Your task to perform on an android device: uninstall "Google Maps" Image 0: 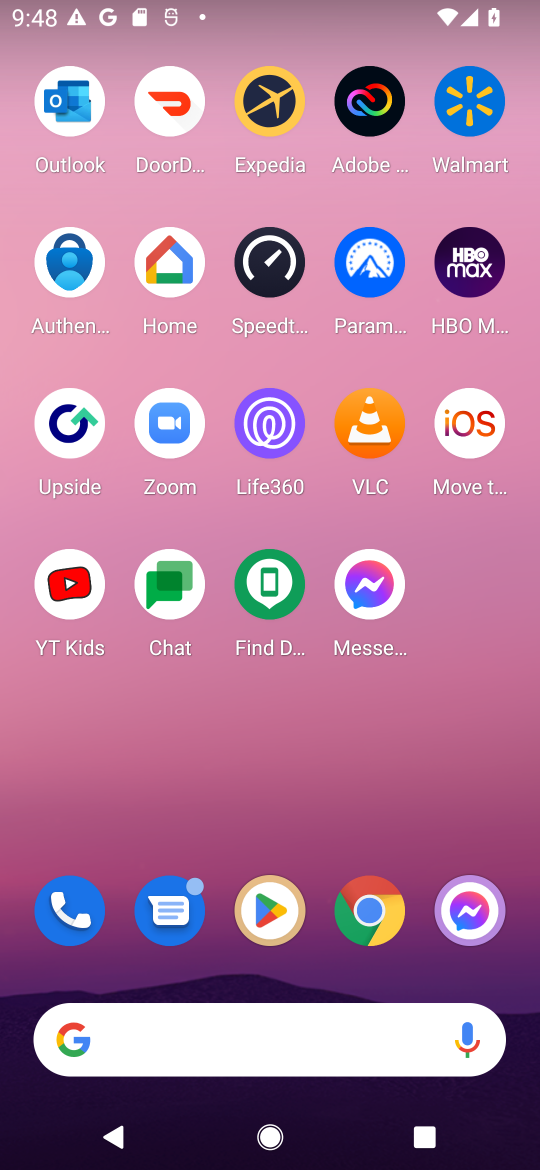
Step 0: click (272, 905)
Your task to perform on an android device: uninstall "Google Maps" Image 1: 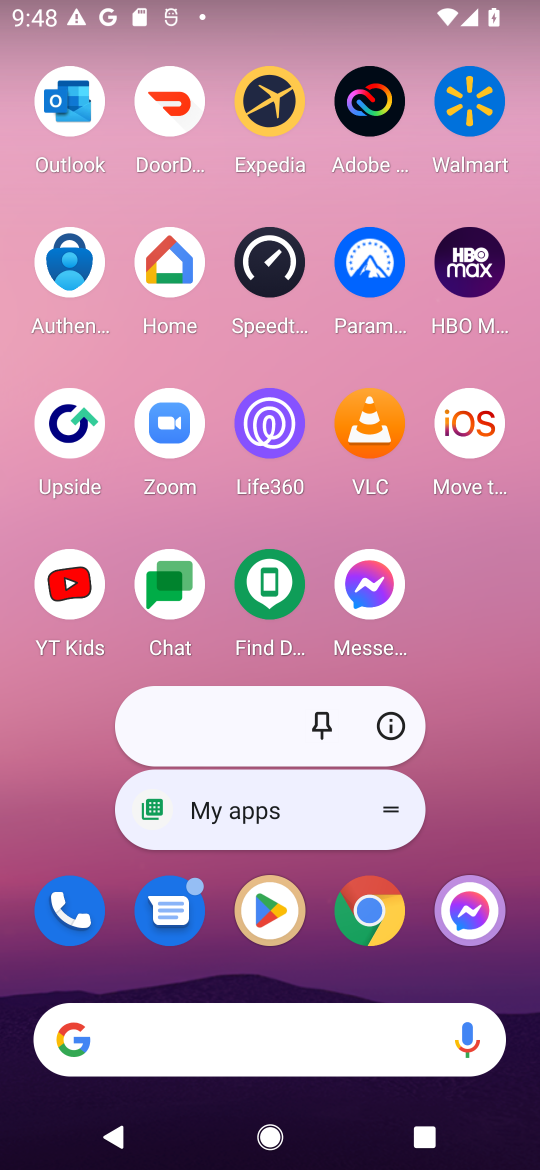
Step 1: click (273, 909)
Your task to perform on an android device: uninstall "Google Maps" Image 2: 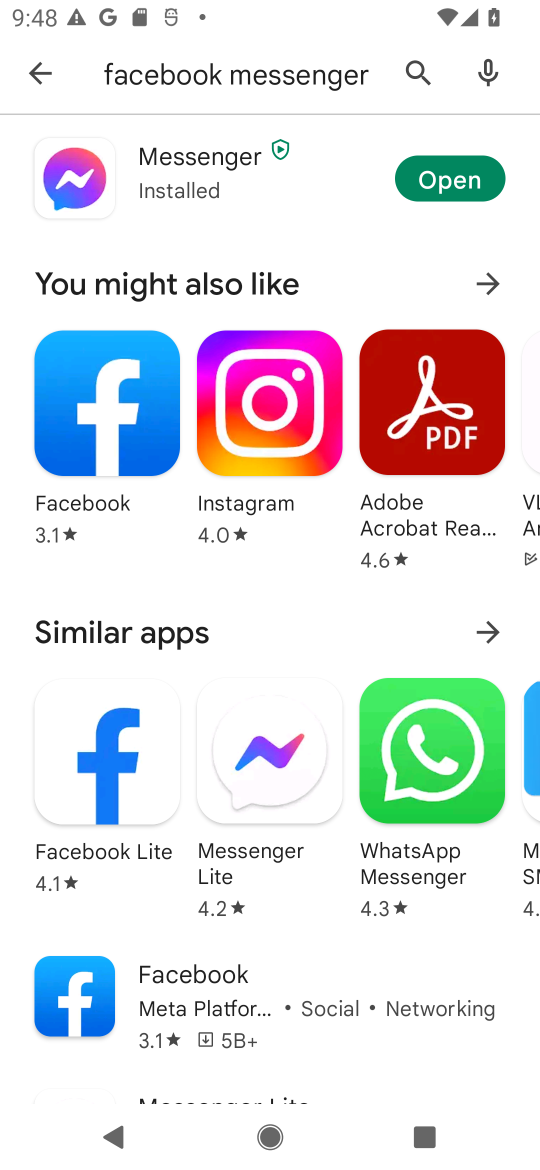
Step 2: click (409, 72)
Your task to perform on an android device: uninstall "Google Maps" Image 3: 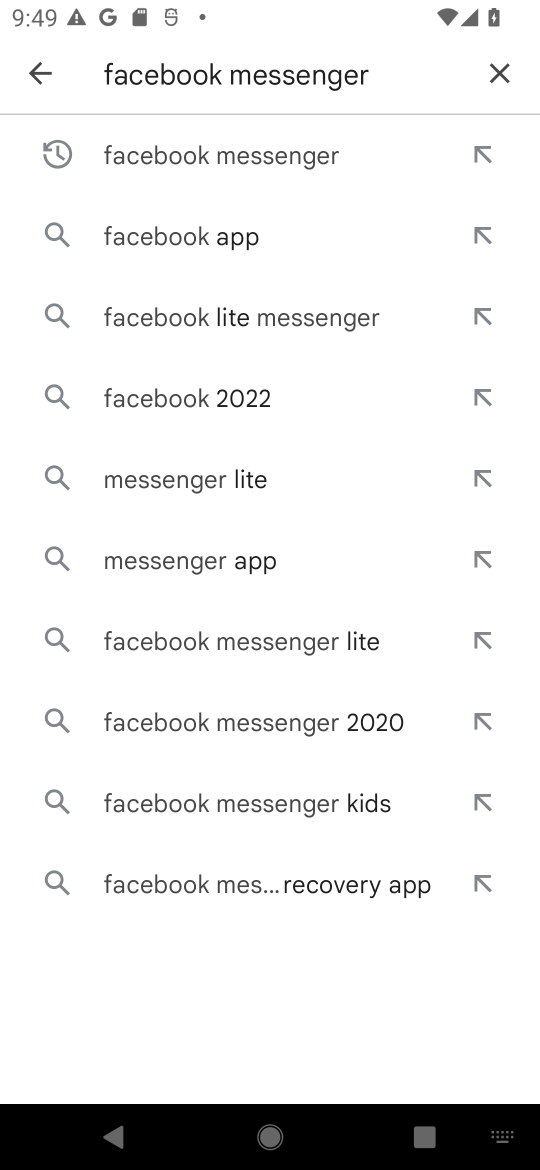
Step 3: click (506, 74)
Your task to perform on an android device: uninstall "Google Maps" Image 4: 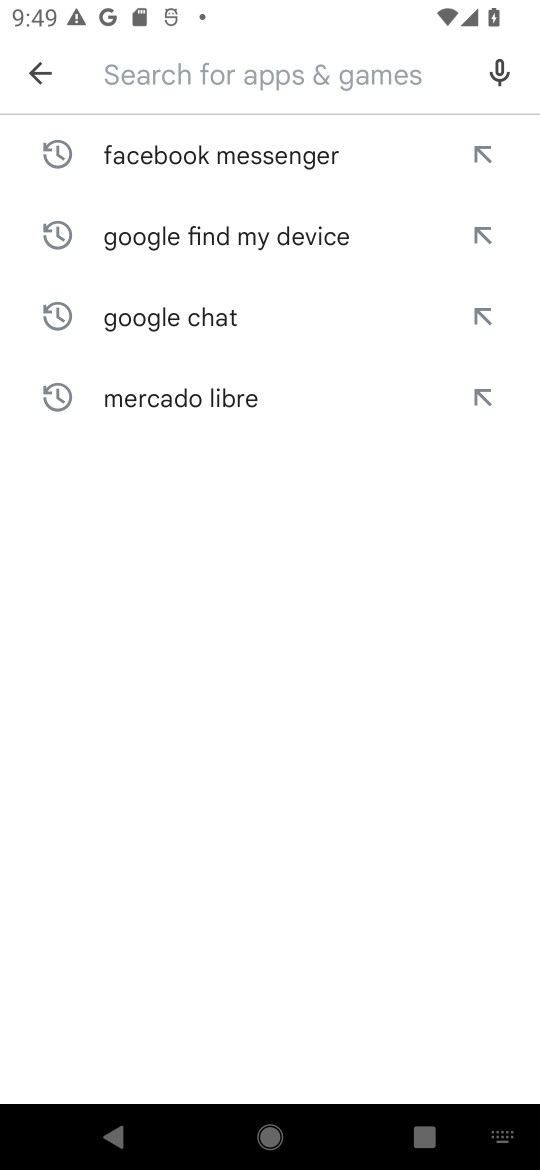
Step 4: type "Google Maps"
Your task to perform on an android device: uninstall "Google Maps" Image 5: 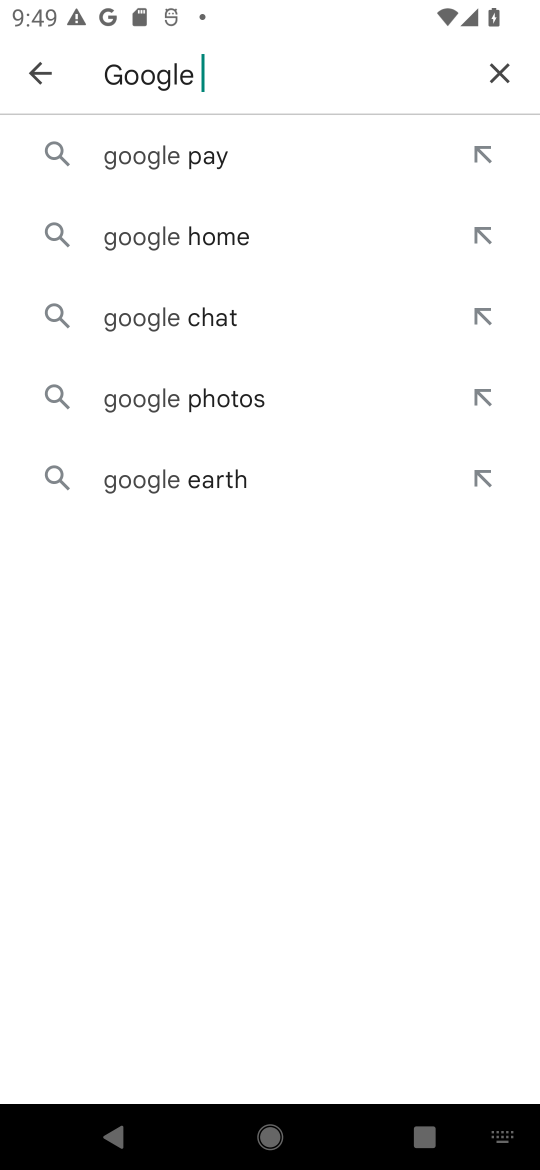
Step 5: type ""
Your task to perform on an android device: uninstall "Google Maps" Image 6: 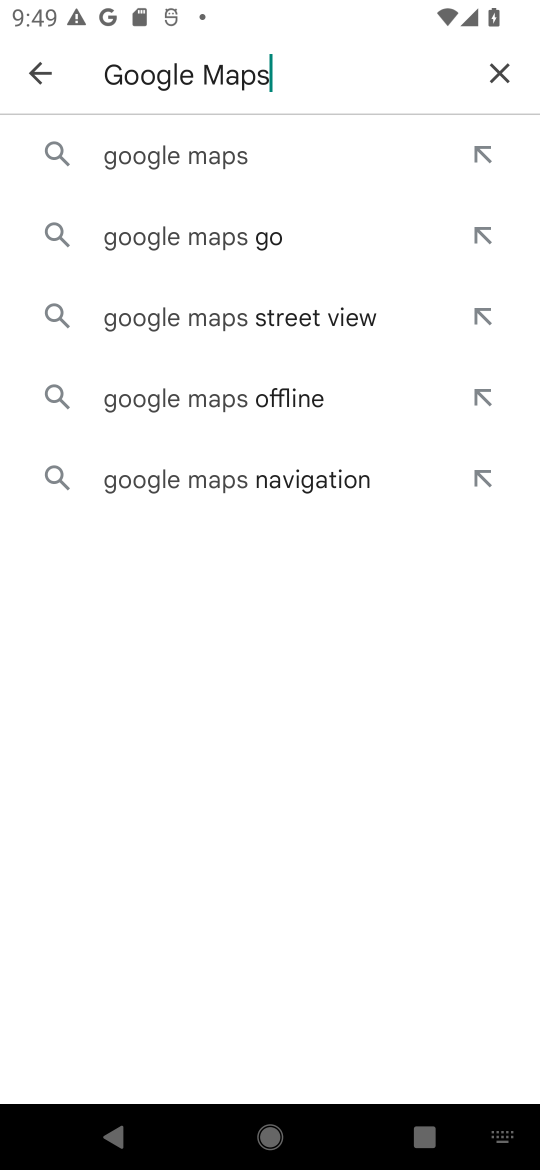
Step 6: click (272, 157)
Your task to perform on an android device: uninstall "Google Maps" Image 7: 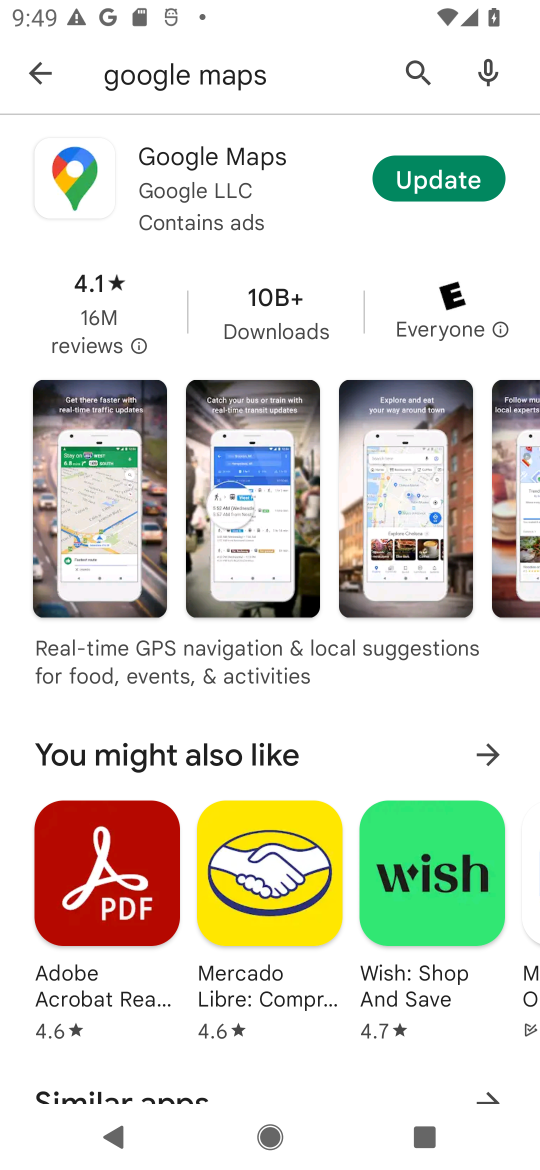
Step 7: click (308, 163)
Your task to perform on an android device: uninstall "Google Maps" Image 8: 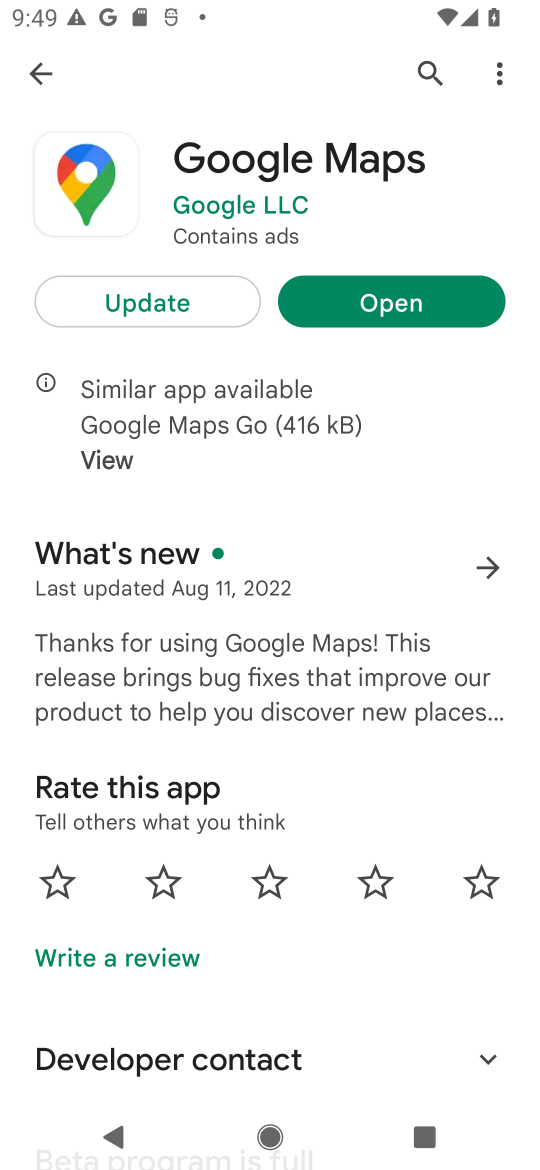
Step 8: click (235, 284)
Your task to perform on an android device: uninstall "Google Maps" Image 9: 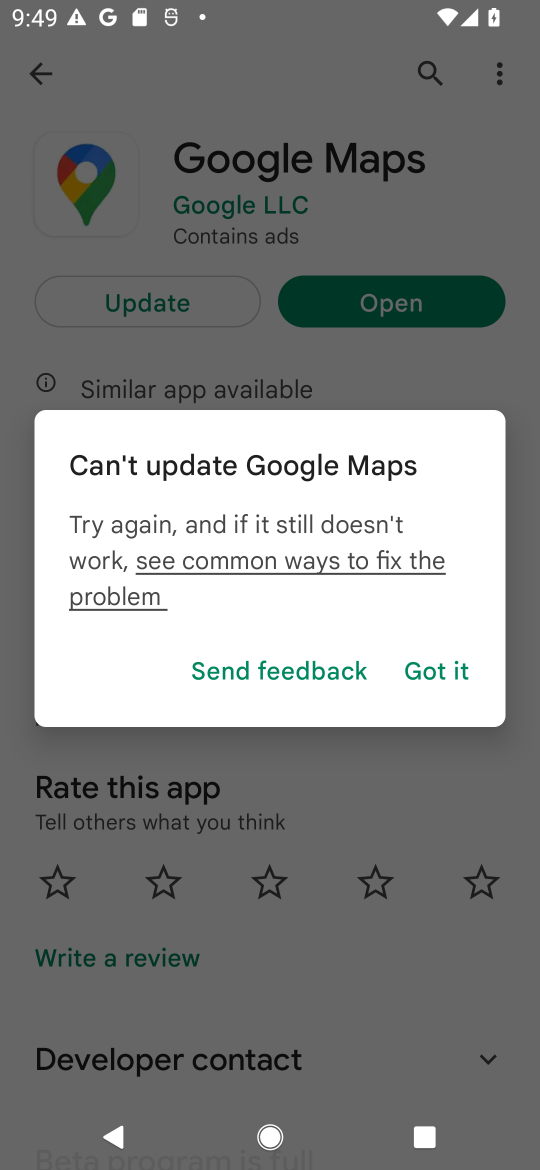
Step 9: click (398, 657)
Your task to perform on an android device: uninstall "Google Maps" Image 10: 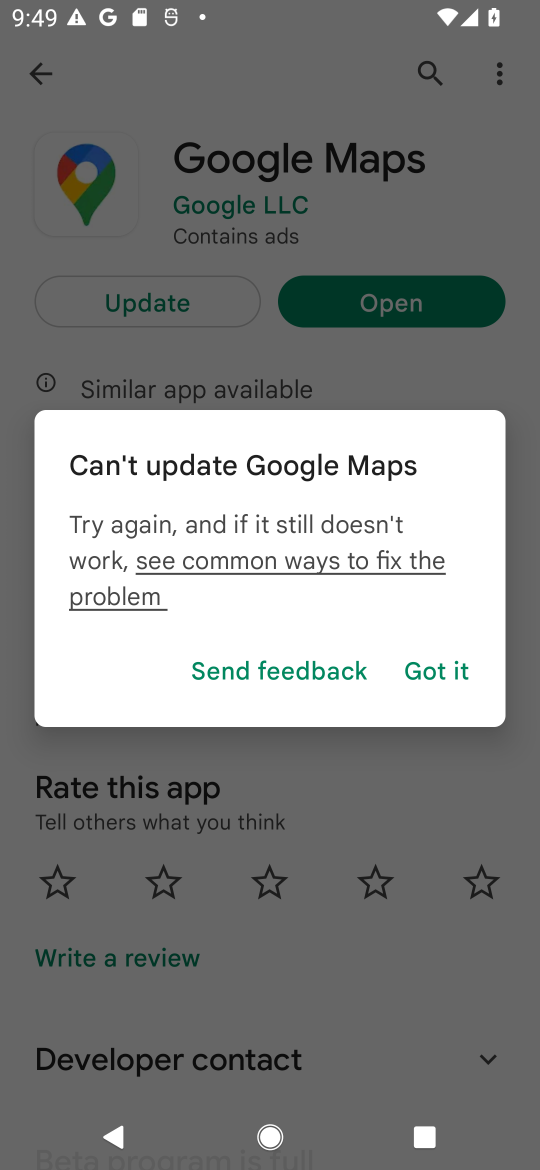
Step 10: click (437, 663)
Your task to perform on an android device: uninstall "Google Maps" Image 11: 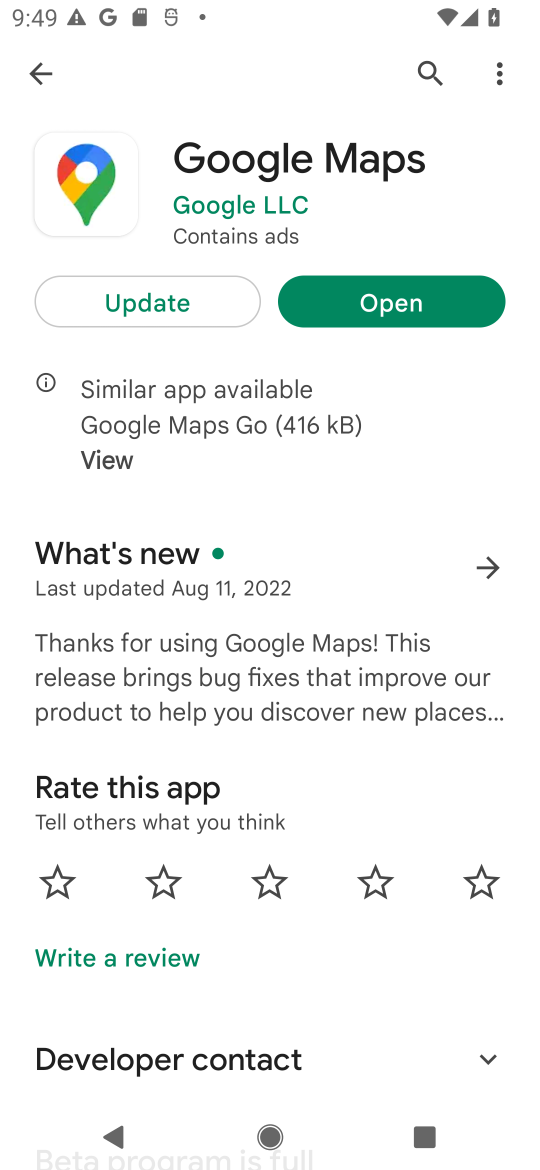
Step 11: click (189, 305)
Your task to perform on an android device: uninstall "Google Maps" Image 12: 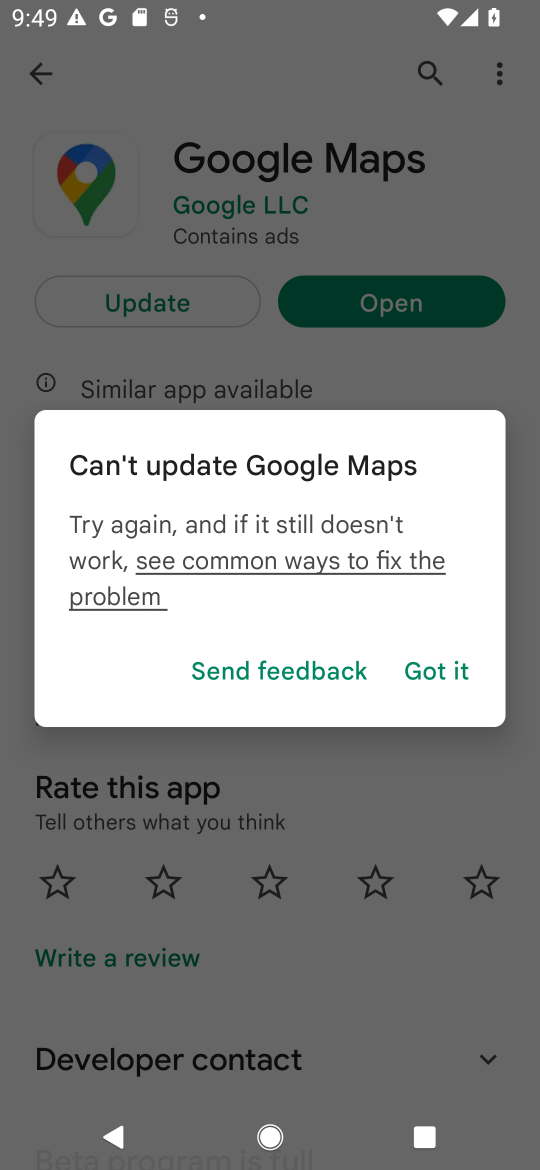
Step 12: click (424, 672)
Your task to perform on an android device: uninstall "Google Maps" Image 13: 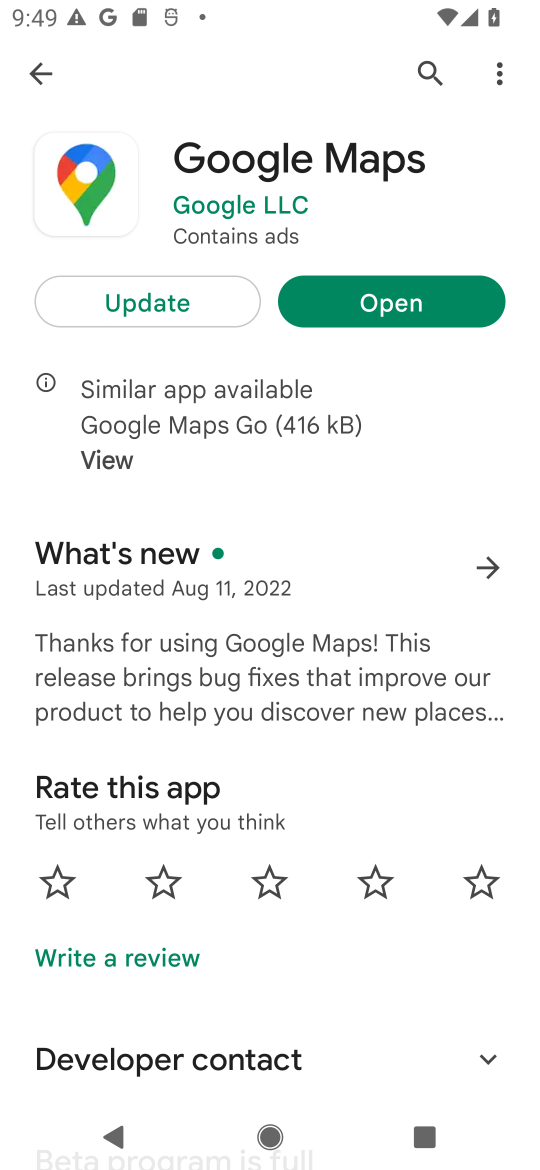
Step 13: click (137, 299)
Your task to perform on an android device: uninstall "Google Maps" Image 14: 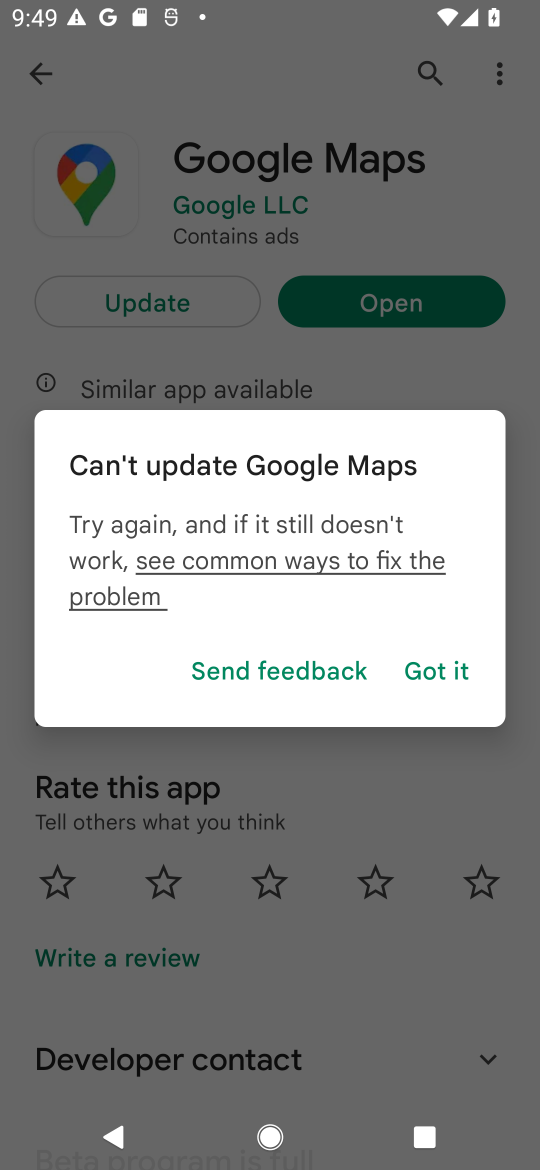
Step 14: click (413, 658)
Your task to perform on an android device: uninstall "Google Maps" Image 15: 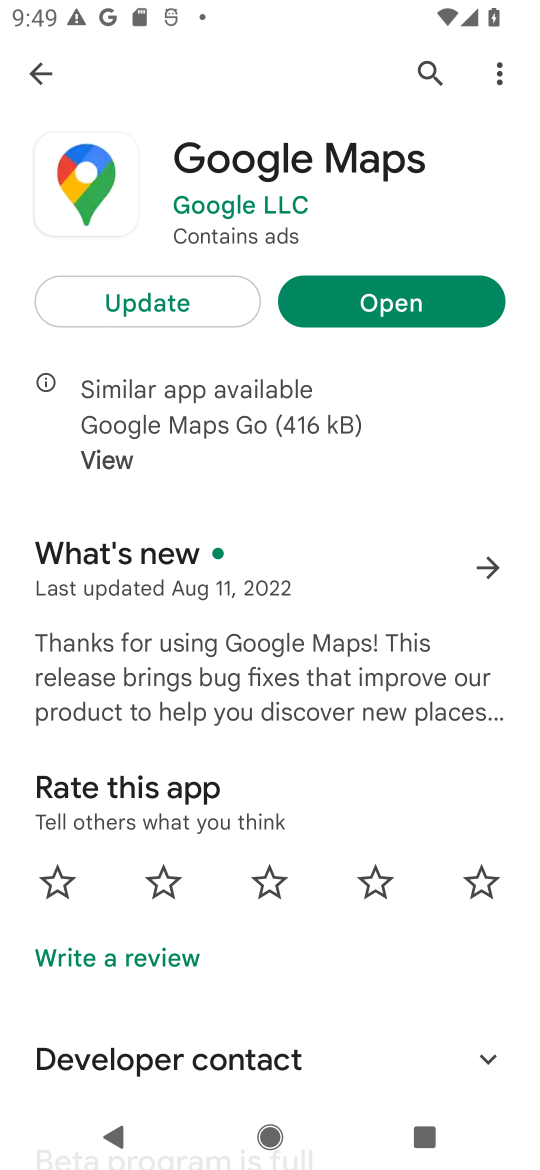
Step 15: task complete